Your task to perform on an android device: check storage Image 0: 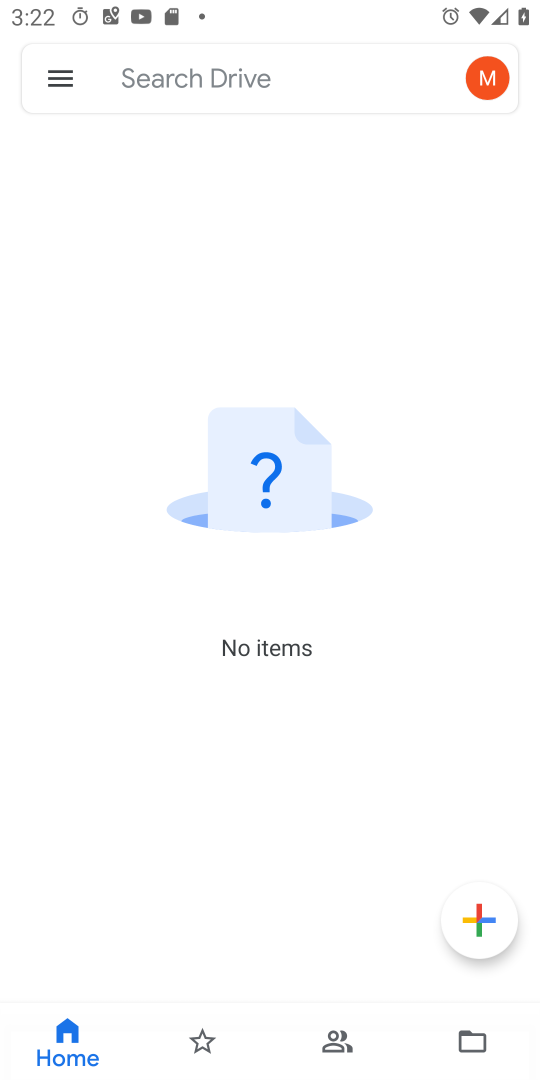
Step 0: press back button
Your task to perform on an android device: check storage Image 1: 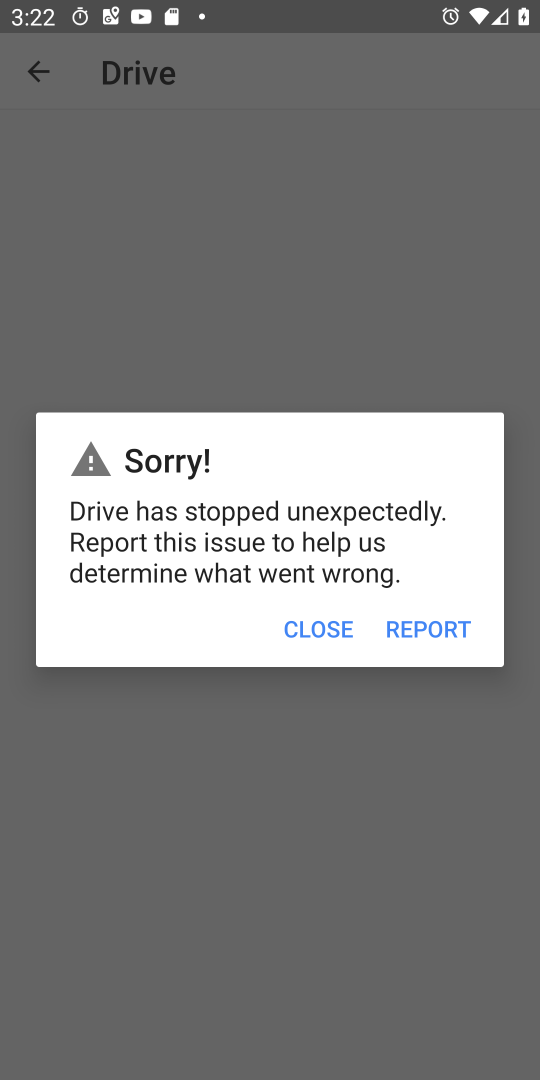
Step 1: press home button
Your task to perform on an android device: check storage Image 2: 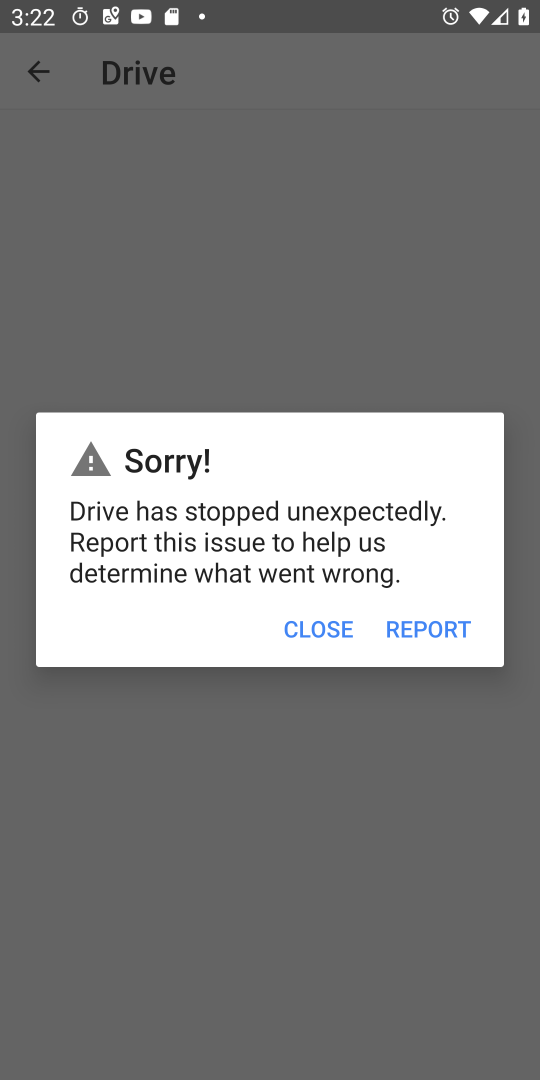
Step 2: press home button
Your task to perform on an android device: check storage Image 3: 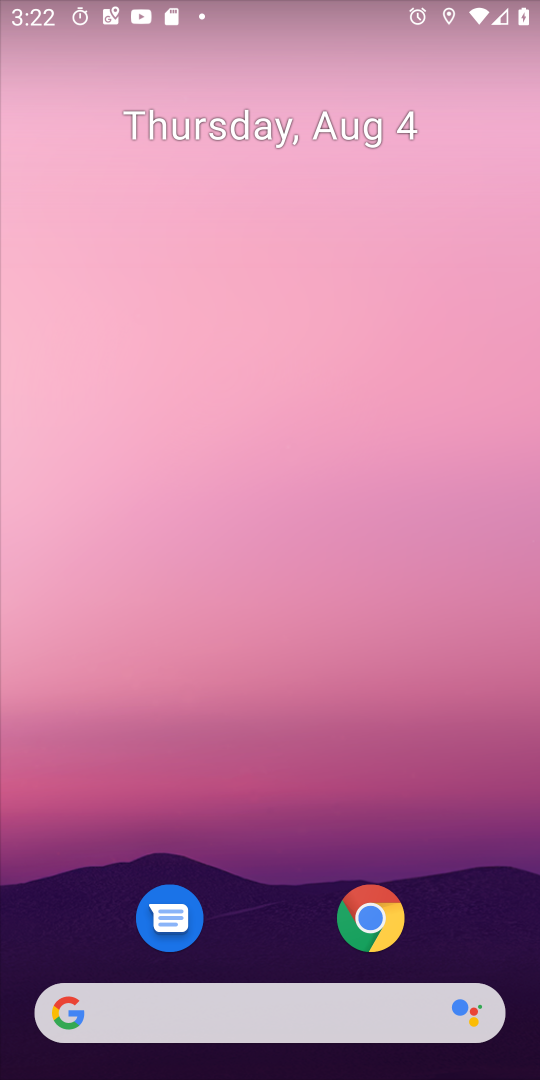
Step 3: drag from (256, 802) to (250, 456)
Your task to perform on an android device: check storage Image 4: 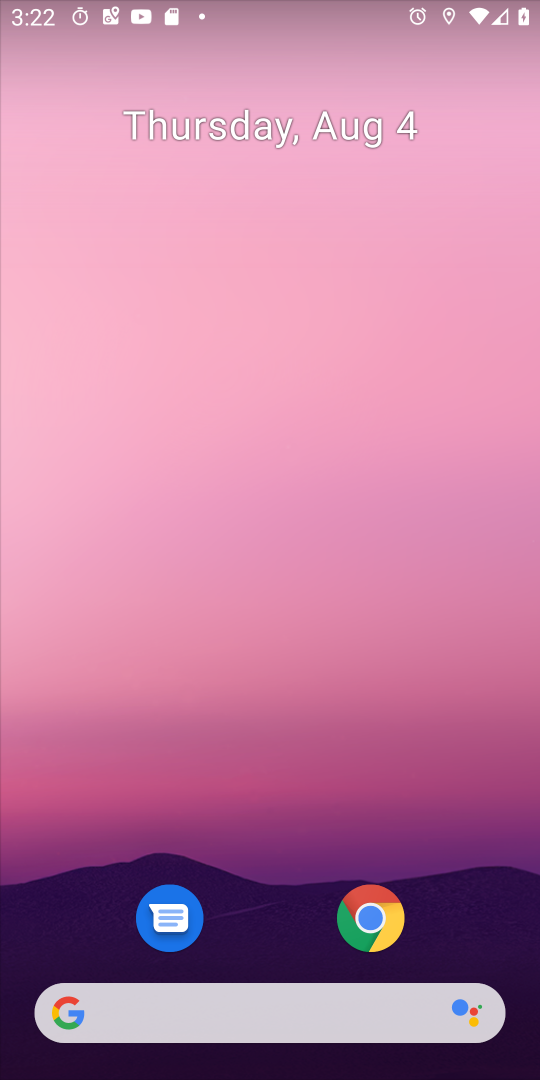
Step 4: drag from (286, 927) to (251, 388)
Your task to perform on an android device: check storage Image 5: 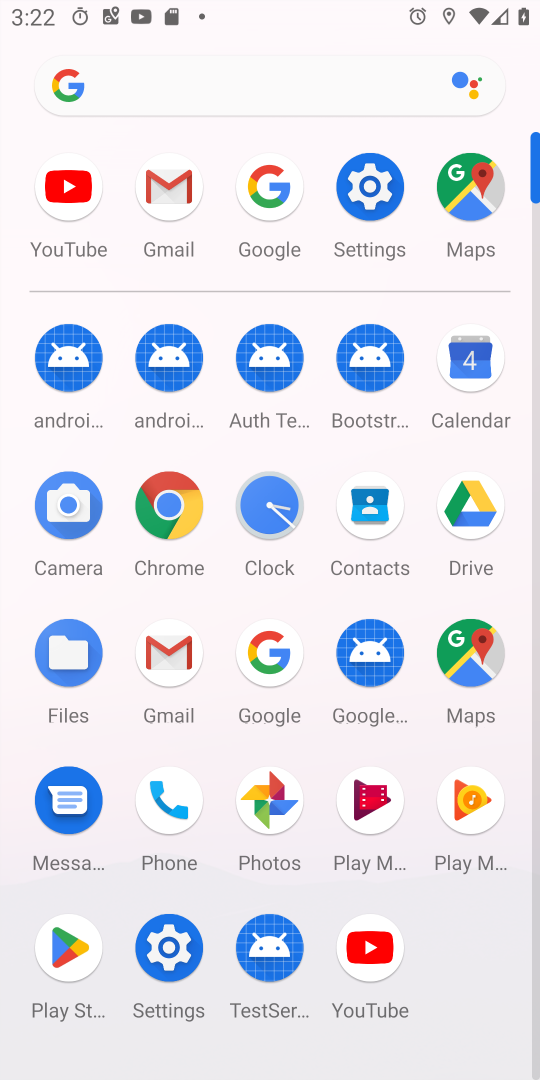
Step 5: click (371, 164)
Your task to perform on an android device: check storage Image 6: 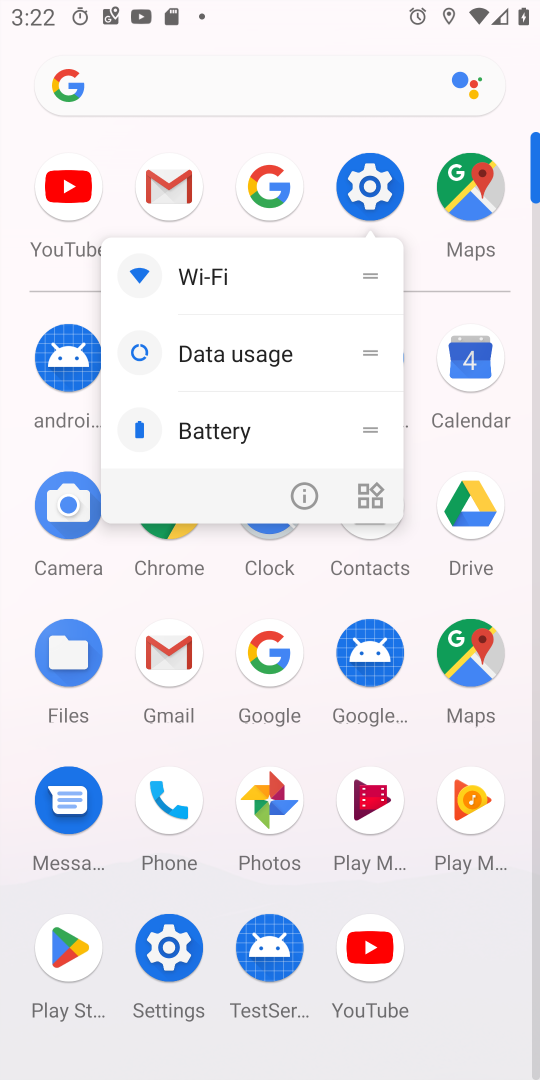
Step 6: click (362, 212)
Your task to perform on an android device: check storage Image 7: 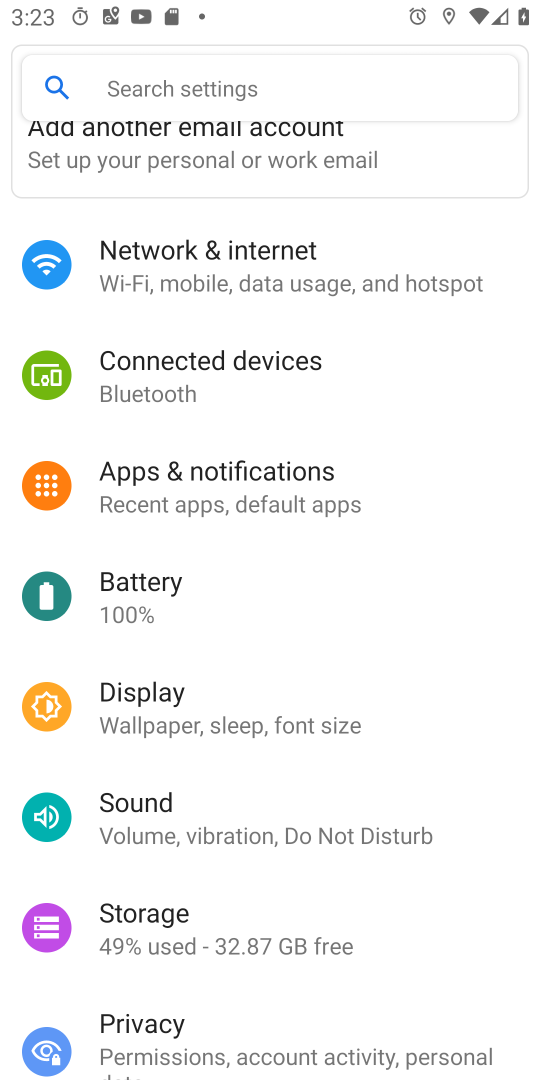
Step 7: click (225, 939)
Your task to perform on an android device: check storage Image 8: 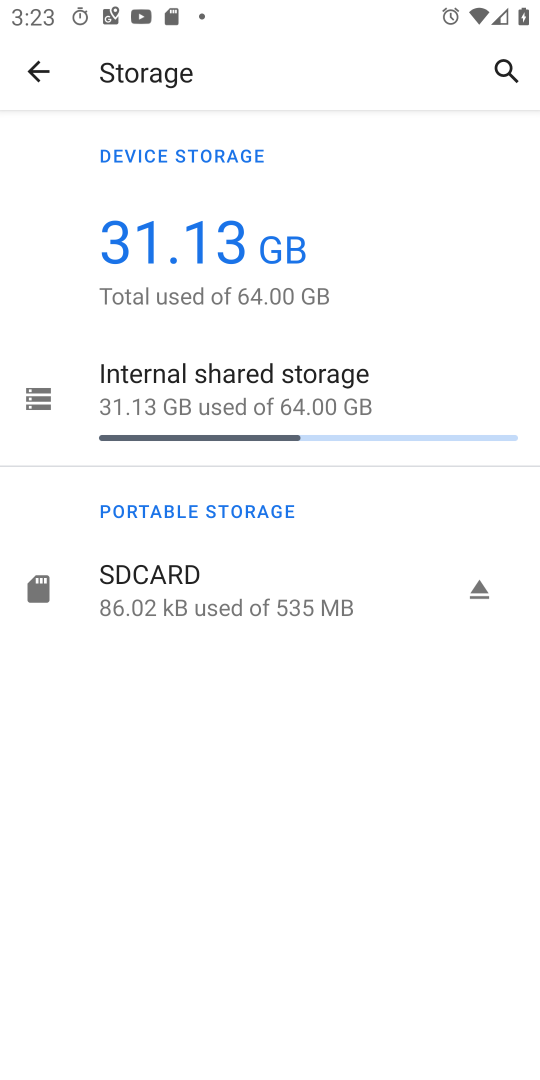
Step 8: task complete